Your task to perform on an android device: Toggle the flashlight Image 0: 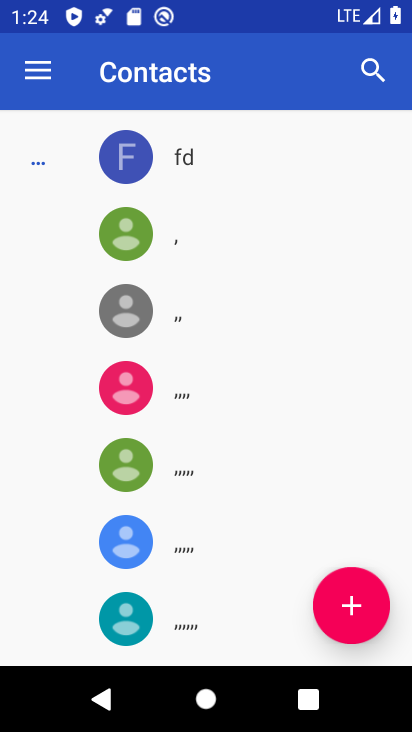
Step 0: drag from (297, 9) to (344, 486)
Your task to perform on an android device: Toggle the flashlight Image 1: 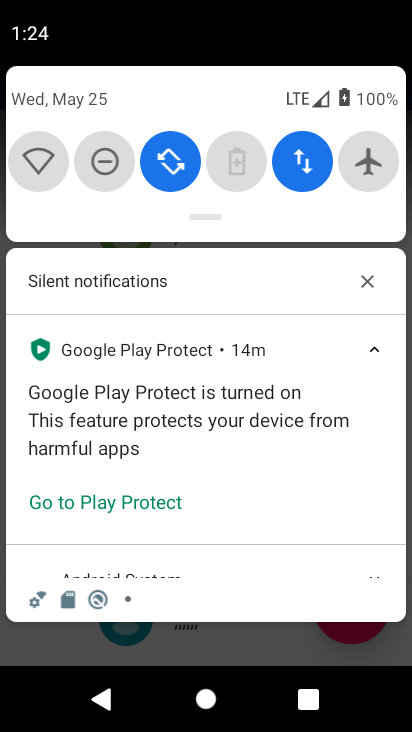
Step 1: drag from (210, 195) to (242, 582)
Your task to perform on an android device: Toggle the flashlight Image 2: 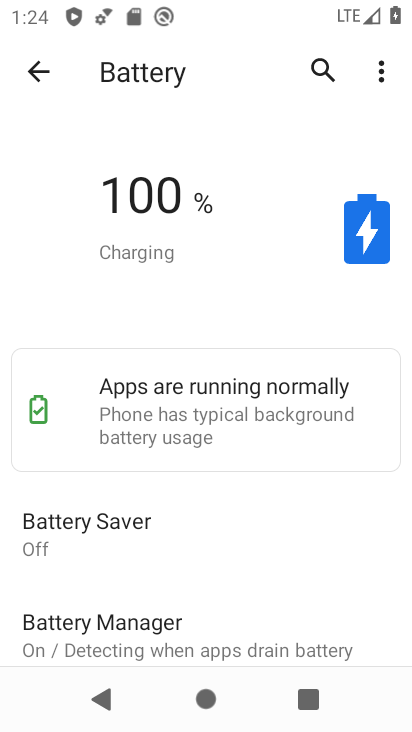
Step 2: drag from (215, 12) to (268, 456)
Your task to perform on an android device: Toggle the flashlight Image 3: 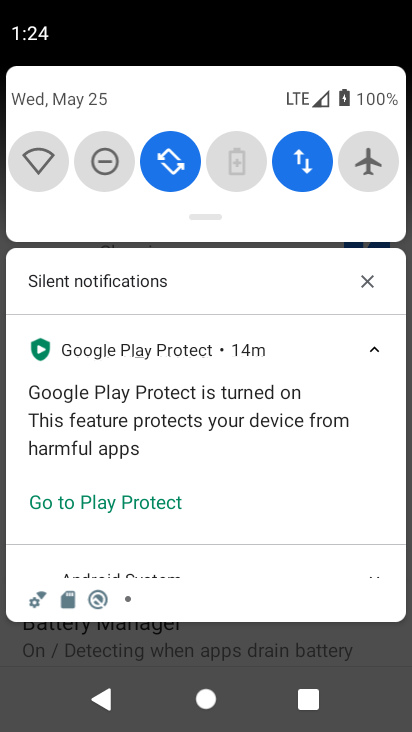
Step 3: drag from (207, 188) to (238, 429)
Your task to perform on an android device: Toggle the flashlight Image 4: 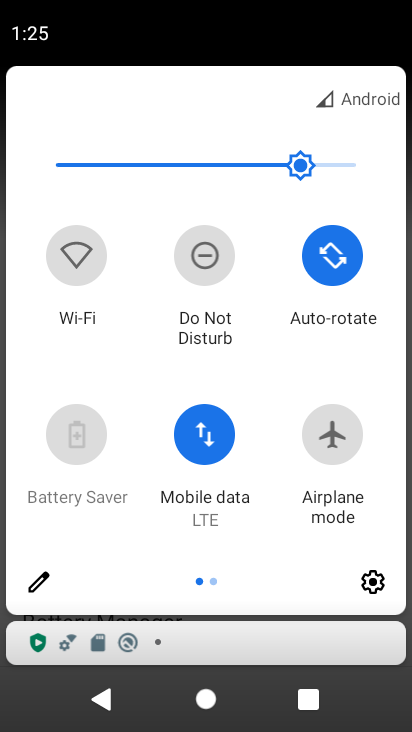
Step 4: click (53, 571)
Your task to perform on an android device: Toggle the flashlight Image 5: 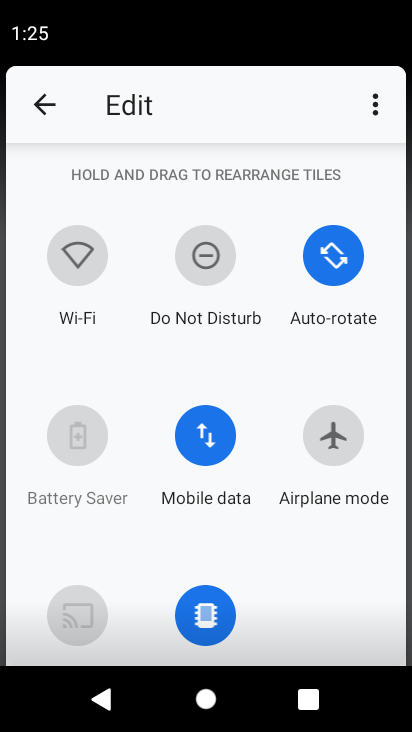
Step 5: task complete